Your task to perform on an android device: delete a single message in the gmail app Image 0: 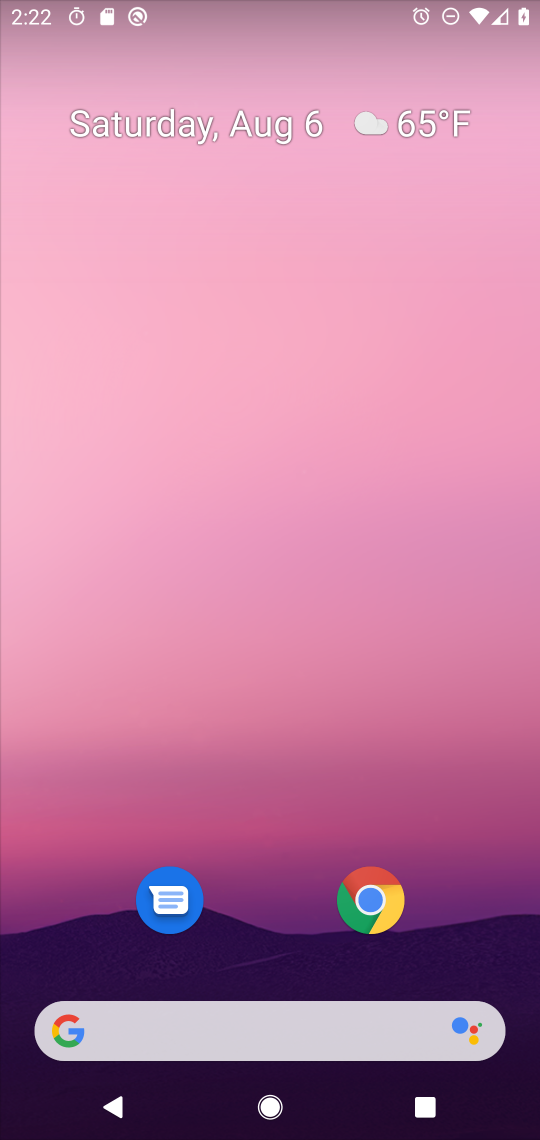
Step 0: drag from (338, 812) to (384, 259)
Your task to perform on an android device: delete a single message in the gmail app Image 1: 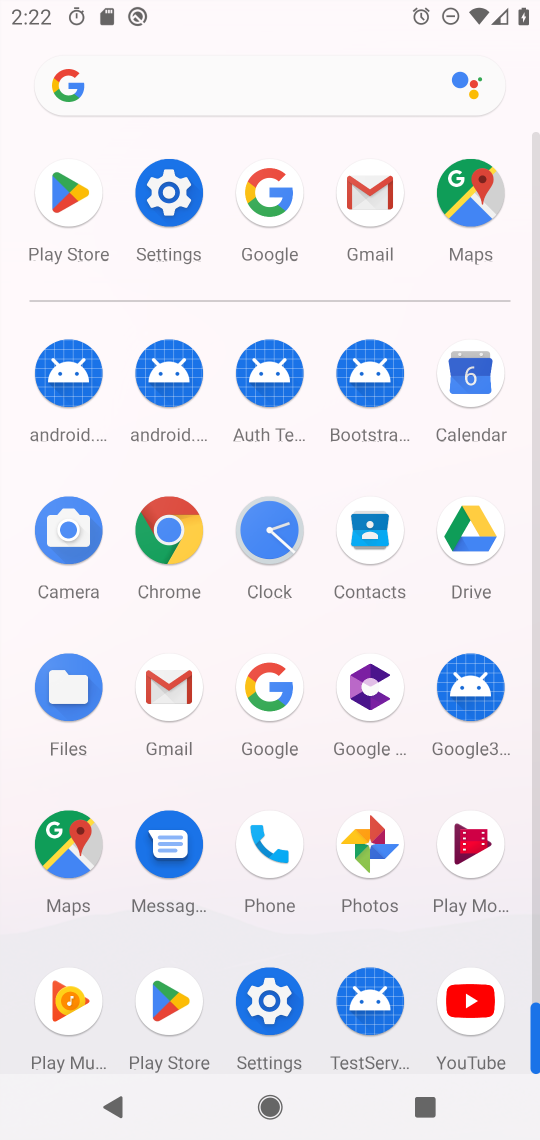
Step 1: click (176, 685)
Your task to perform on an android device: delete a single message in the gmail app Image 2: 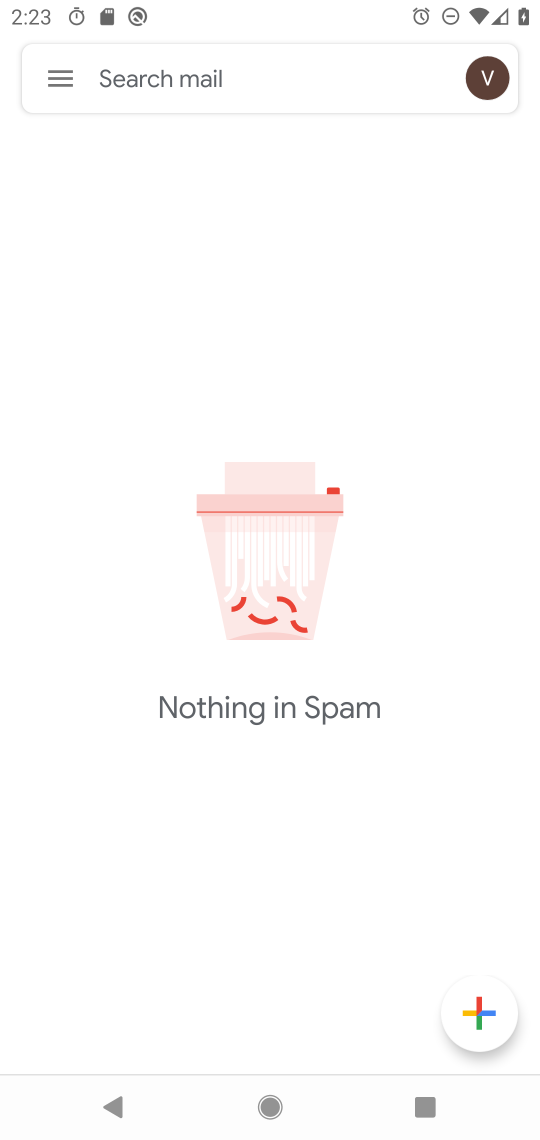
Step 2: click (65, 80)
Your task to perform on an android device: delete a single message in the gmail app Image 3: 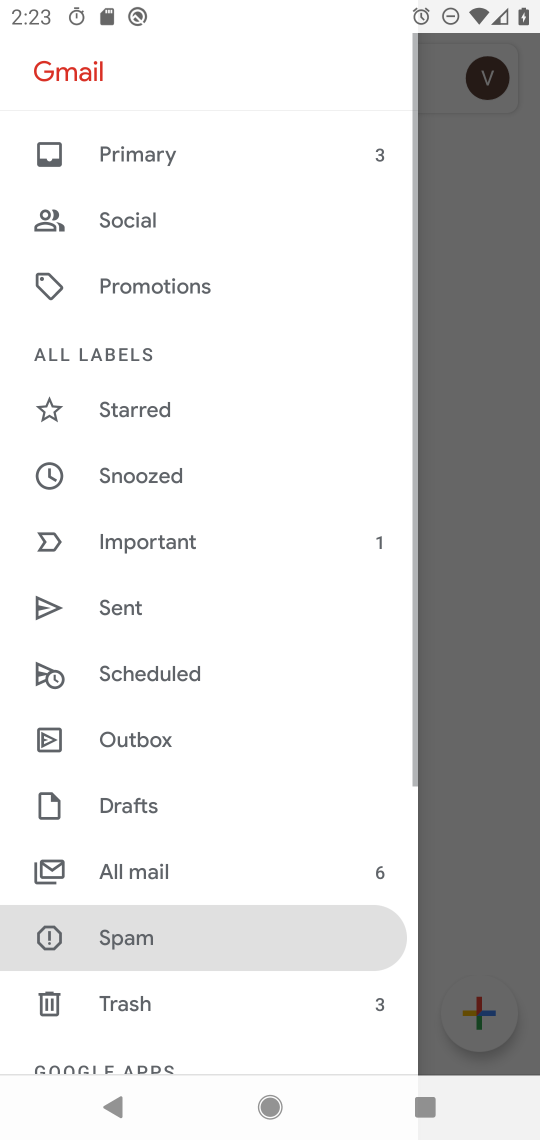
Step 3: click (153, 154)
Your task to perform on an android device: delete a single message in the gmail app Image 4: 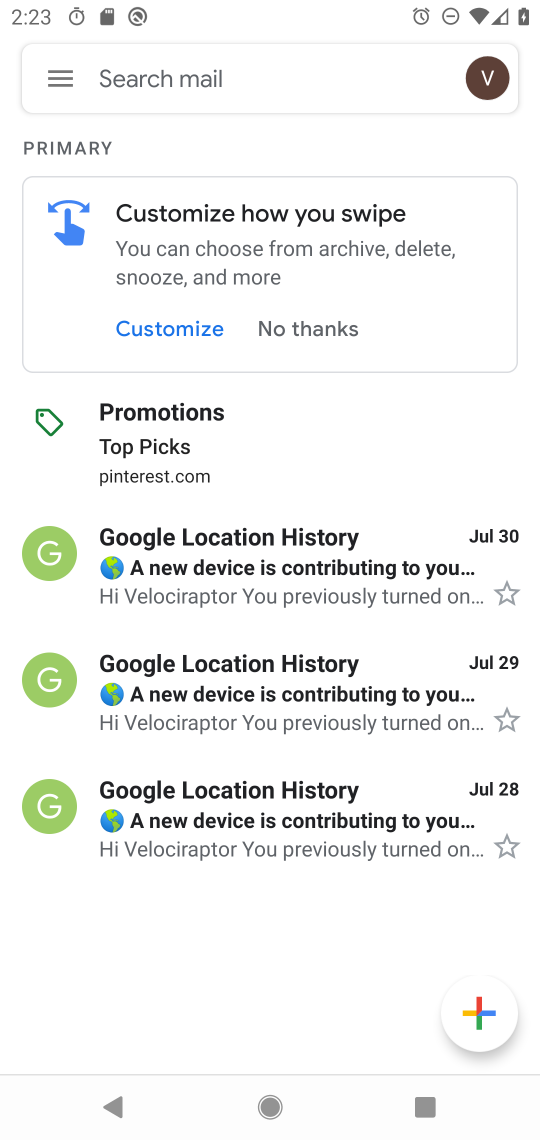
Step 4: click (221, 545)
Your task to perform on an android device: delete a single message in the gmail app Image 5: 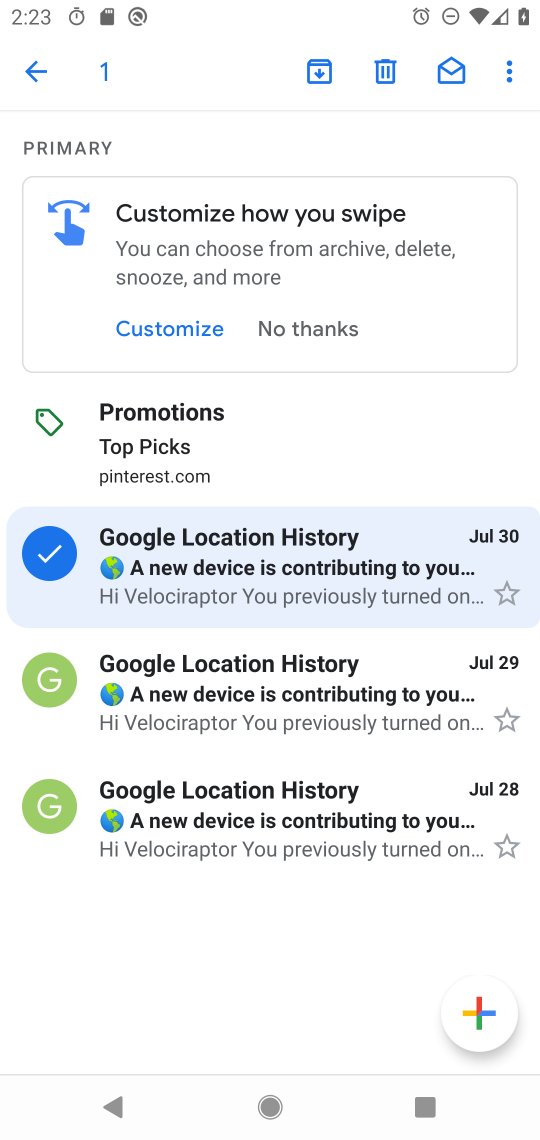
Step 5: click (389, 67)
Your task to perform on an android device: delete a single message in the gmail app Image 6: 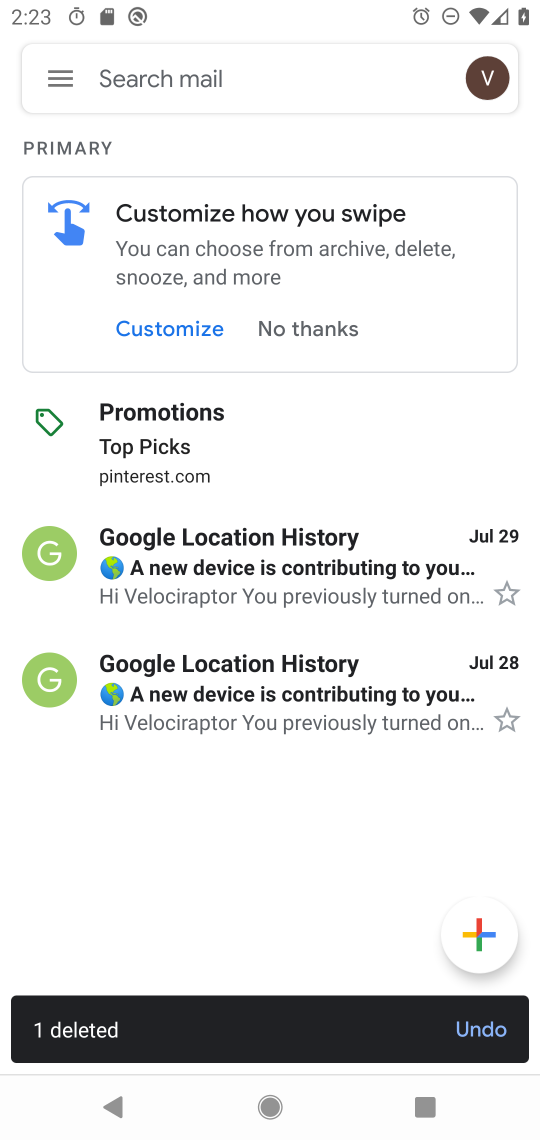
Step 6: task complete